Your task to perform on an android device: Go to sound settings Image 0: 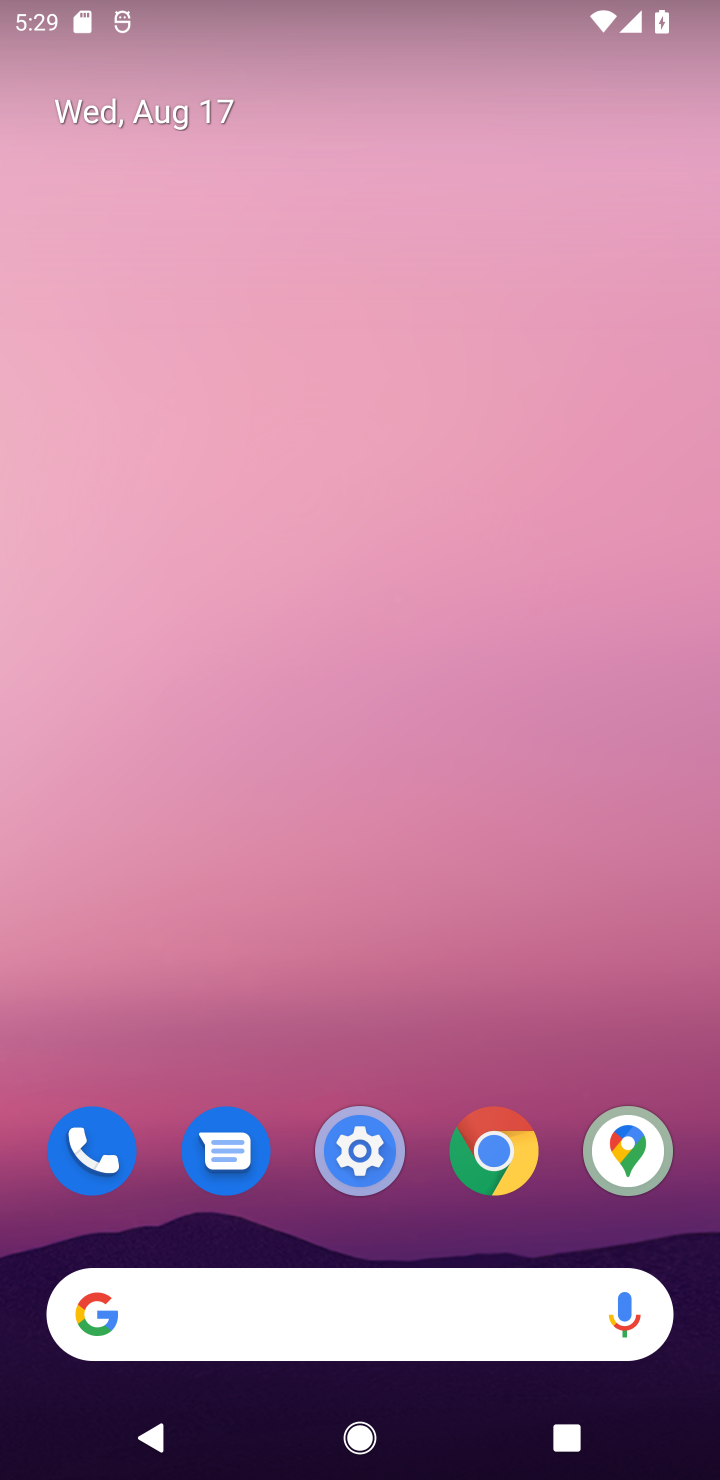
Step 0: click (361, 1204)
Your task to perform on an android device: Go to sound settings Image 1: 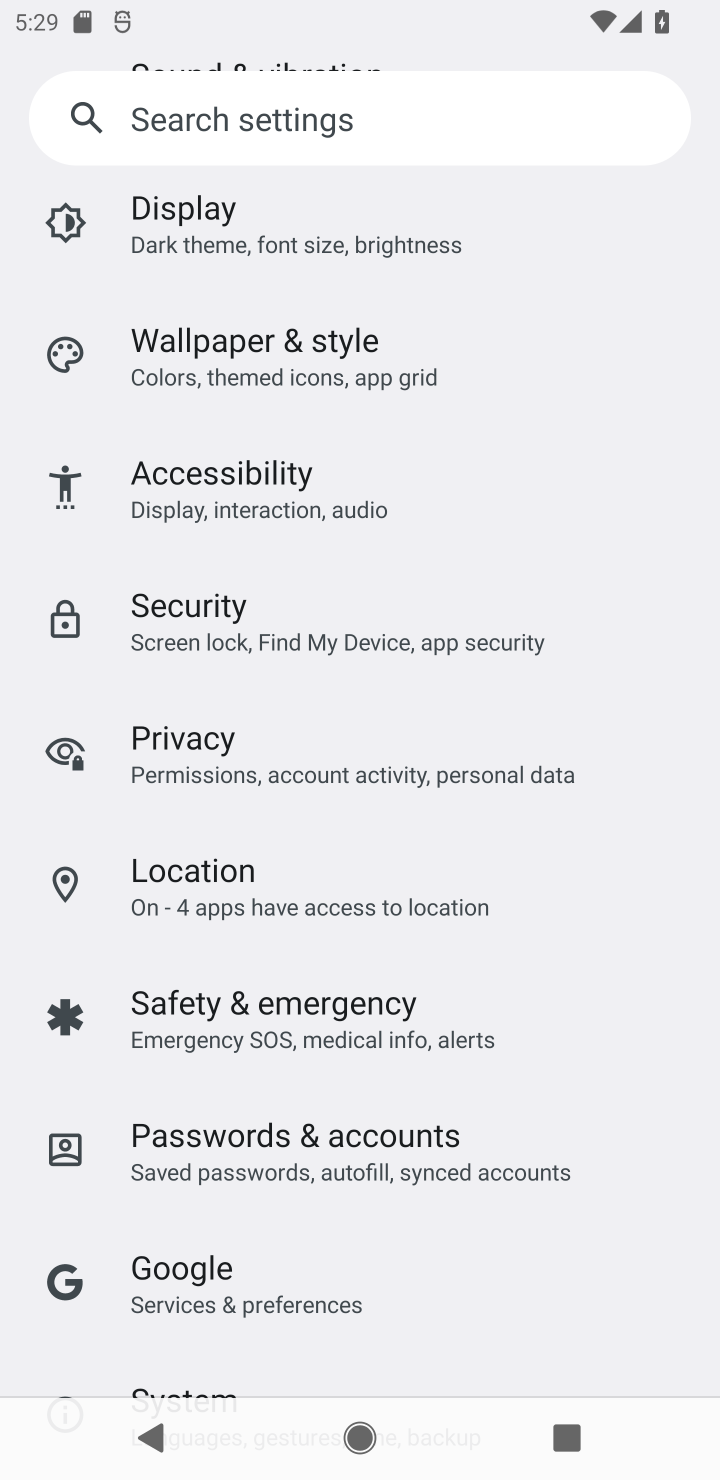
Step 1: drag from (203, 589) to (329, 1179)
Your task to perform on an android device: Go to sound settings Image 2: 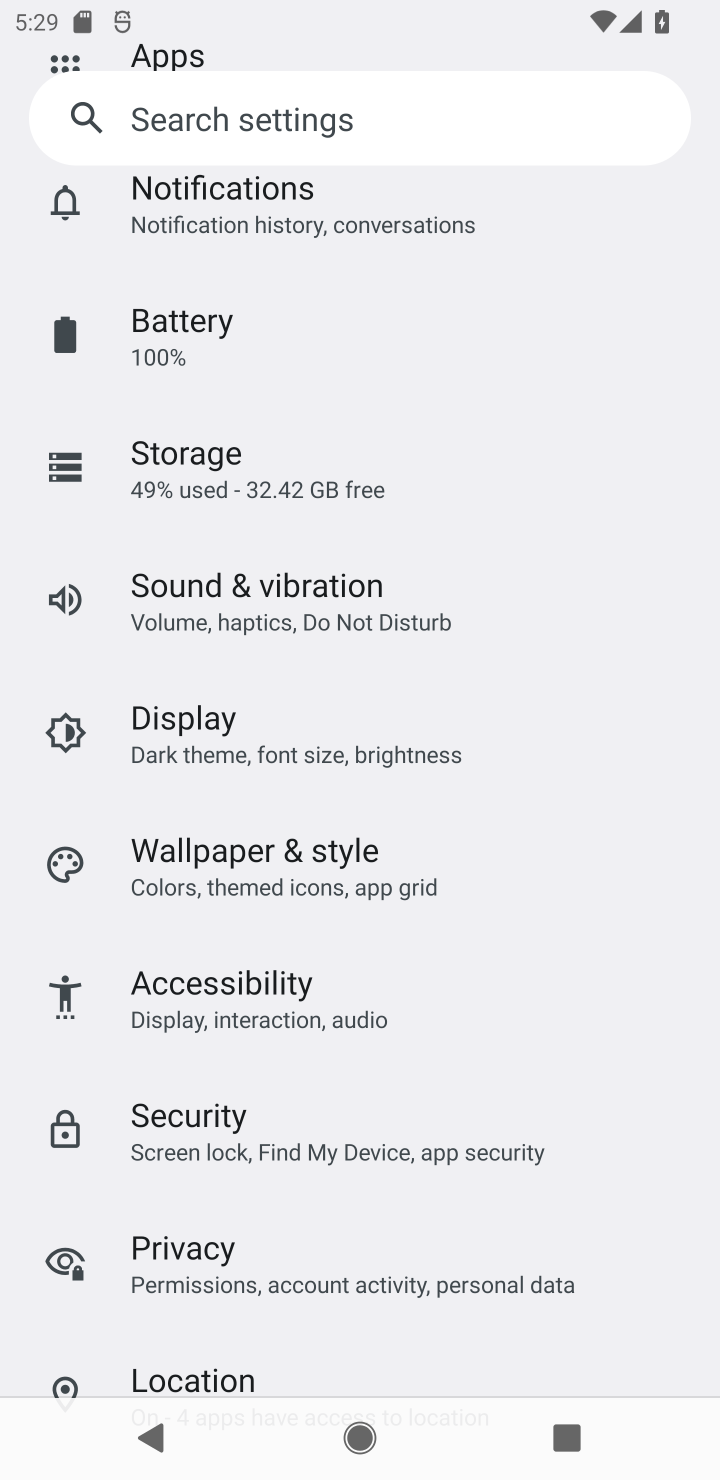
Step 2: click (399, 581)
Your task to perform on an android device: Go to sound settings Image 3: 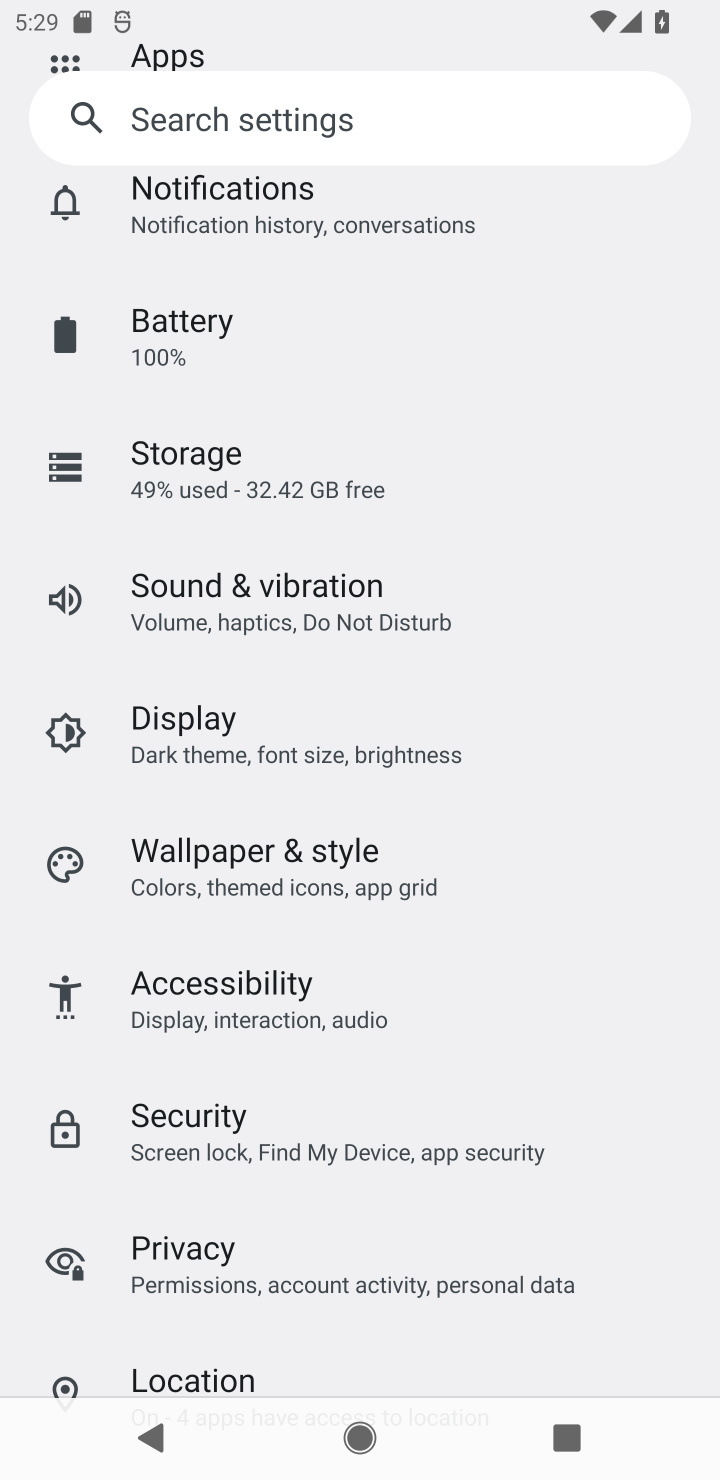
Step 3: task complete